Your task to perform on an android device: change timer sound Image 0: 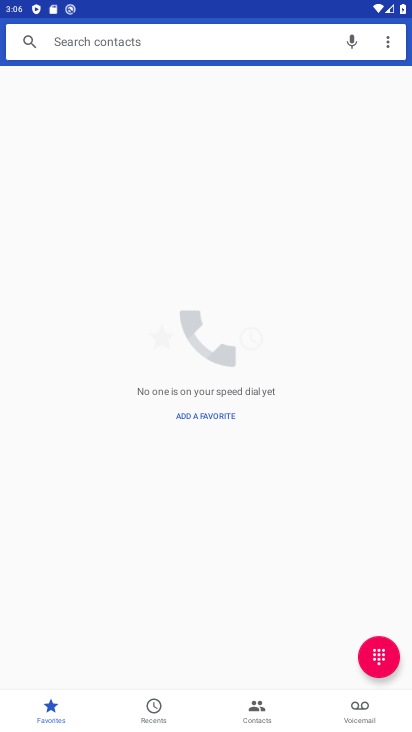
Step 0: press home button
Your task to perform on an android device: change timer sound Image 1: 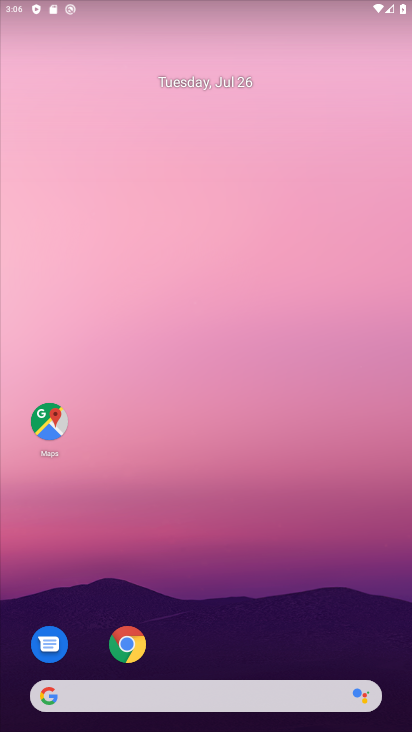
Step 1: drag from (167, 684) to (163, 262)
Your task to perform on an android device: change timer sound Image 2: 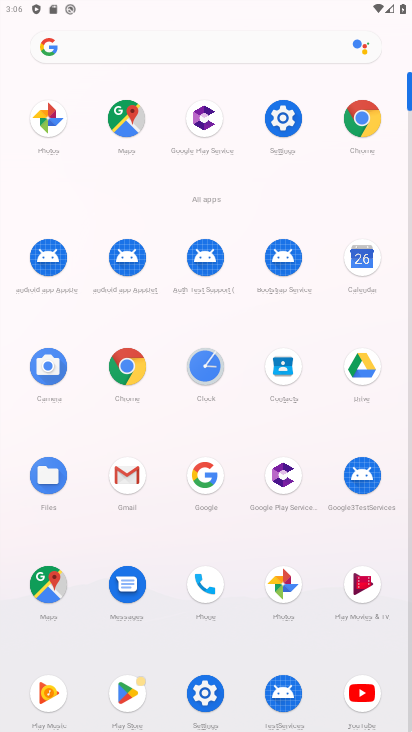
Step 2: click (205, 371)
Your task to perform on an android device: change timer sound Image 3: 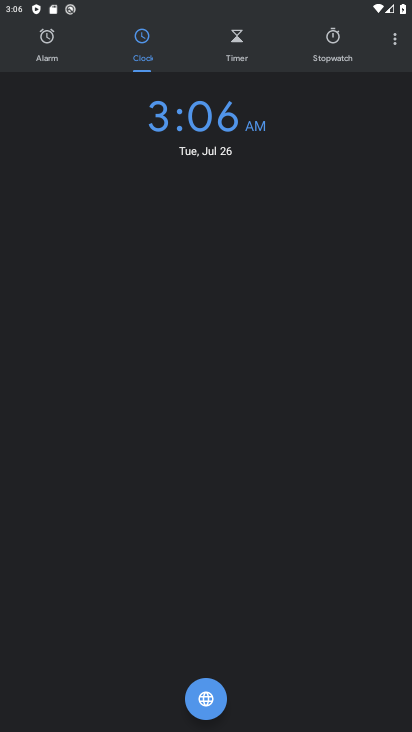
Step 3: click (394, 39)
Your task to perform on an android device: change timer sound Image 4: 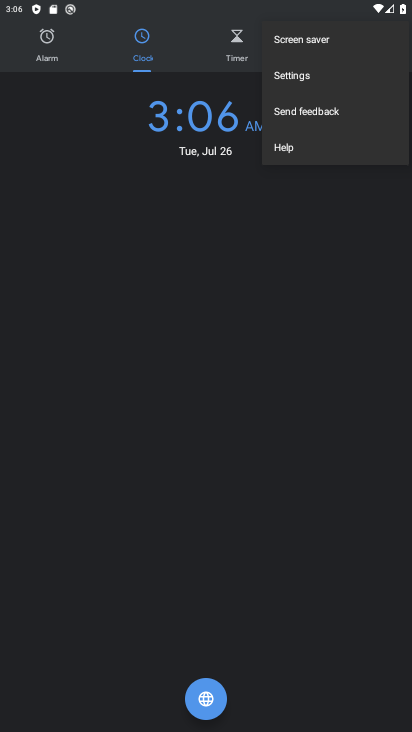
Step 4: click (299, 71)
Your task to perform on an android device: change timer sound Image 5: 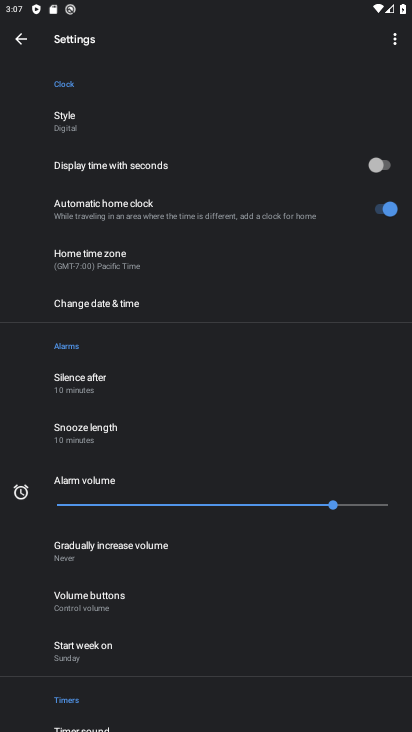
Step 5: drag from (127, 665) to (145, 451)
Your task to perform on an android device: change timer sound Image 6: 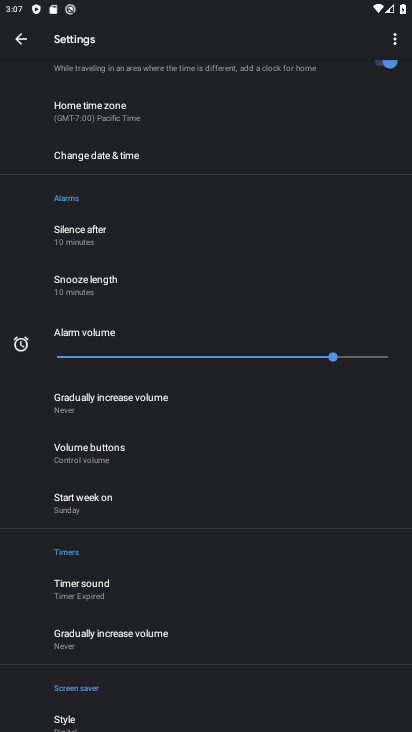
Step 6: click (93, 586)
Your task to perform on an android device: change timer sound Image 7: 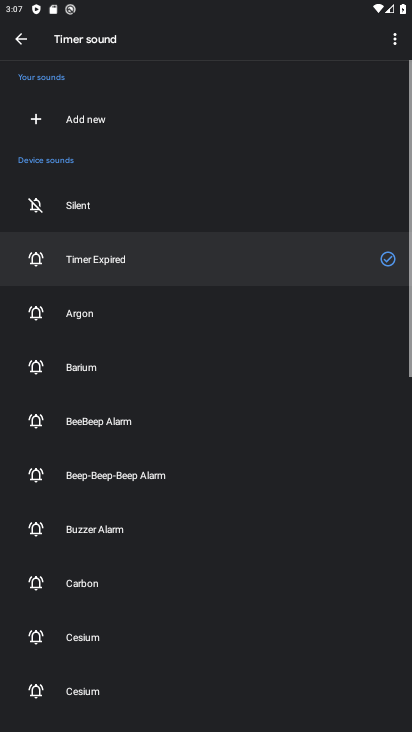
Step 7: click (99, 538)
Your task to perform on an android device: change timer sound Image 8: 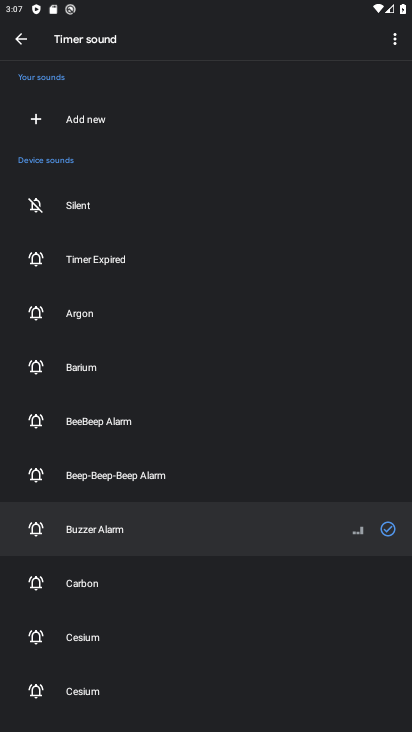
Step 8: task complete